Your task to perform on an android device: Open calendar and show me the fourth week of next month Image 0: 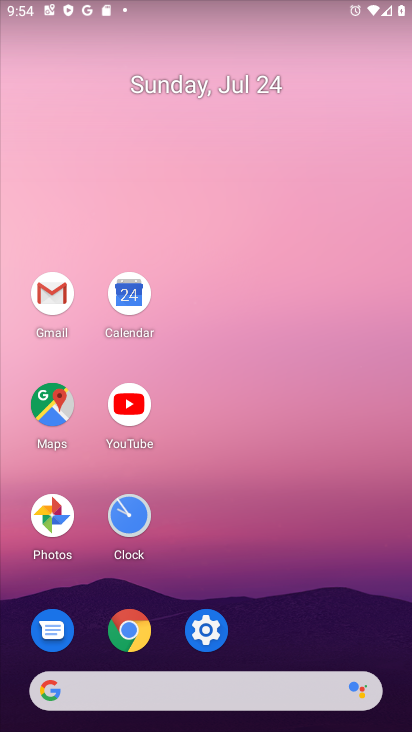
Step 0: click (130, 296)
Your task to perform on an android device: Open calendar and show me the fourth week of next month Image 1: 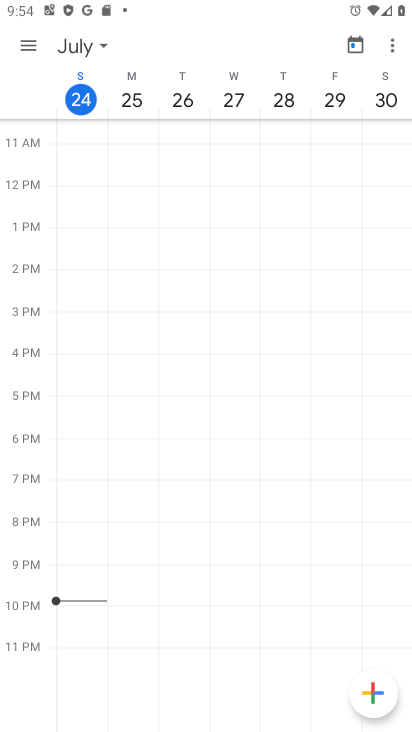
Step 1: click (98, 40)
Your task to perform on an android device: Open calendar and show me the fourth week of next month Image 2: 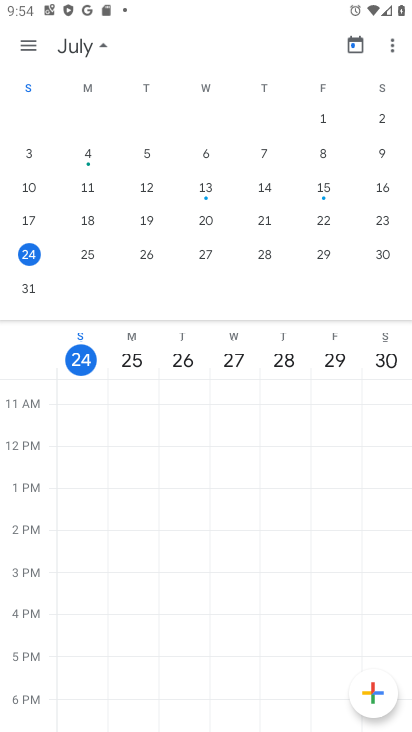
Step 2: drag from (390, 204) to (83, 128)
Your task to perform on an android device: Open calendar and show me the fourth week of next month Image 3: 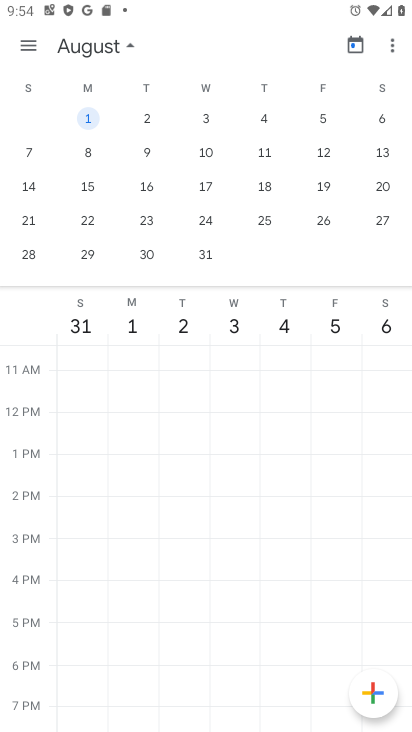
Step 3: click (90, 215)
Your task to perform on an android device: Open calendar and show me the fourth week of next month Image 4: 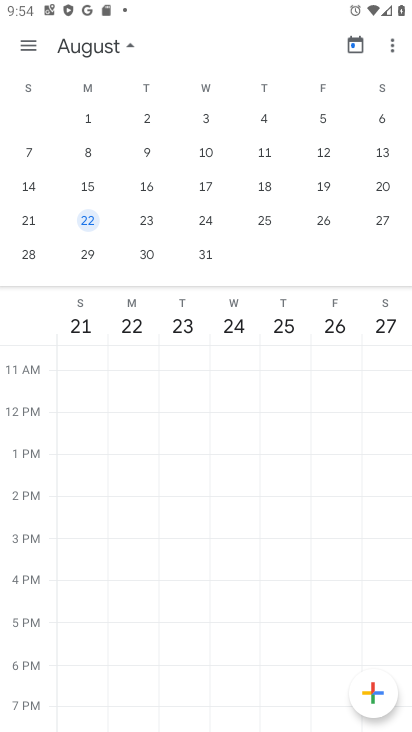
Step 4: task complete